Your task to perform on an android device: Open Chrome and go to settings Image 0: 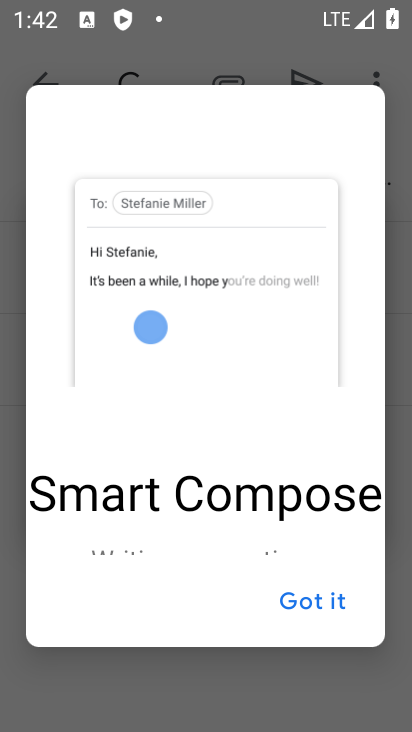
Step 0: press home button
Your task to perform on an android device: Open Chrome and go to settings Image 1: 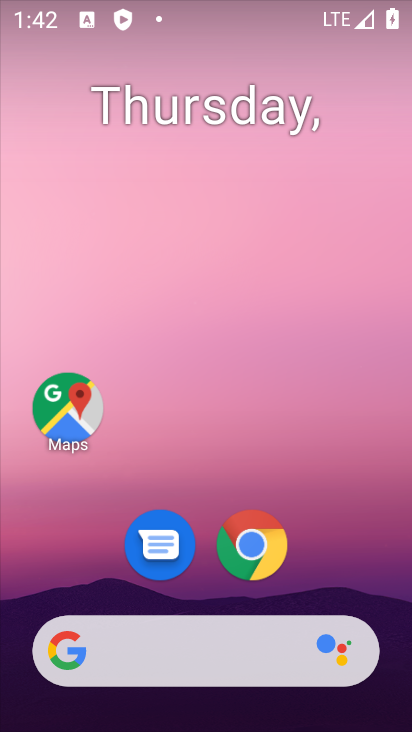
Step 1: drag from (248, 568) to (291, 109)
Your task to perform on an android device: Open Chrome and go to settings Image 2: 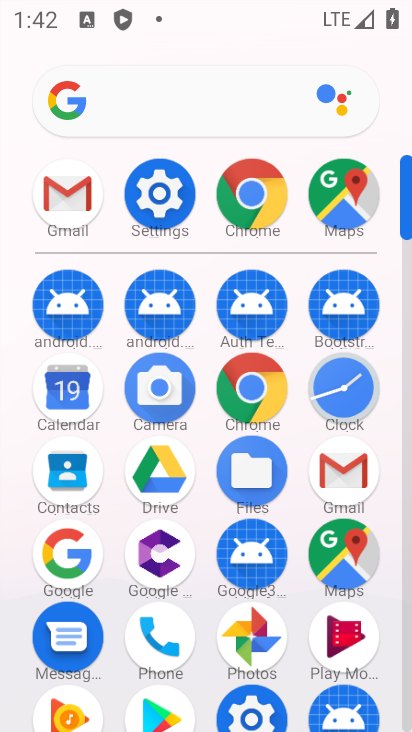
Step 2: click (255, 392)
Your task to perform on an android device: Open Chrome and go to settings Image 3: 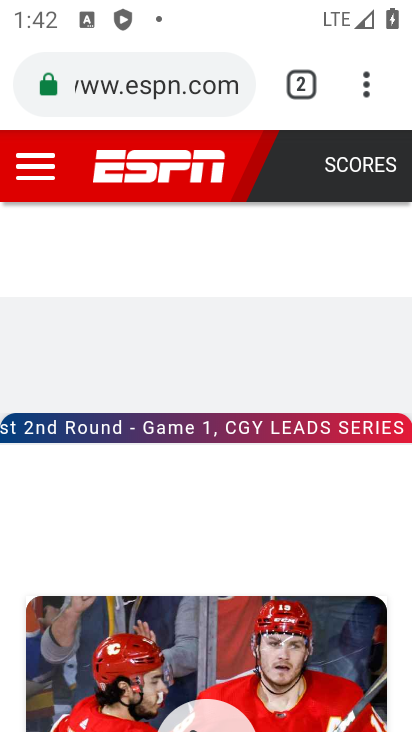
Step 3: click (365, 82)
Your task to perform on an android device: Open Chrome and go to settings Image 4: 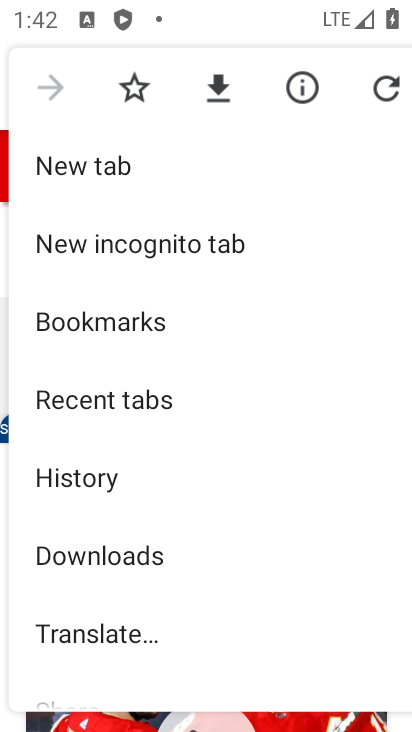
Step 4: drag from (238, 563) to (259, 71)
Your task to perform on an android device: Open Chrome and go to settings Image 5: 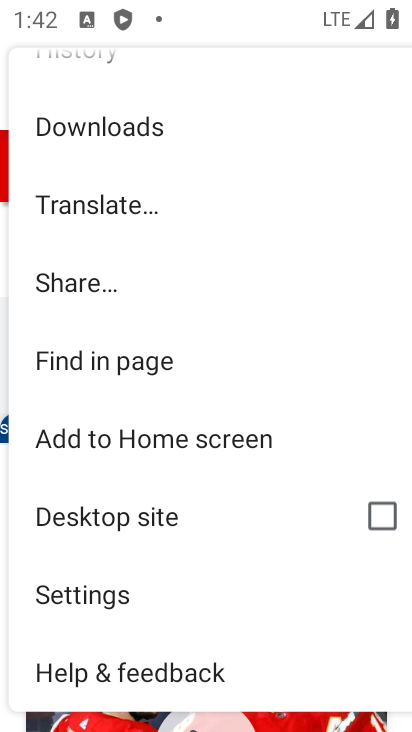
Step 5: click (123, 607)
Your task to perform on an android device: Open Chrome and go to settings Image 6: 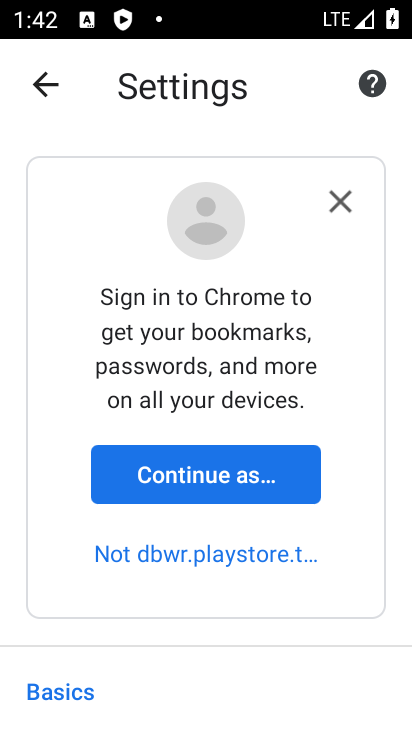
Step 6: task complete